Your task to perform on an android device: turn on airplane mode Image 0: 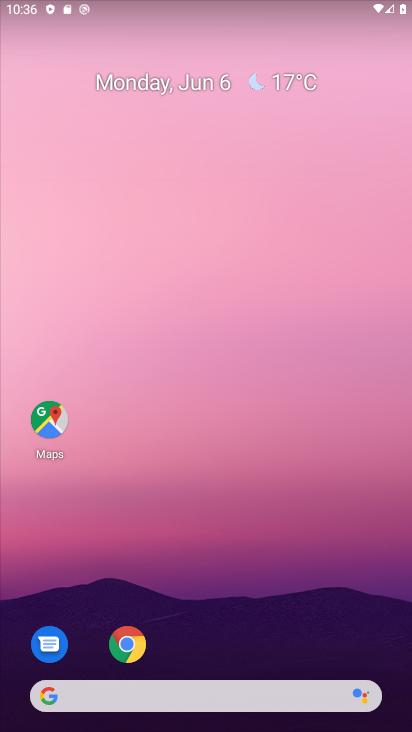
Step 0: press home button
Your task to perform on an android device: turn on airplane mode Image 1: 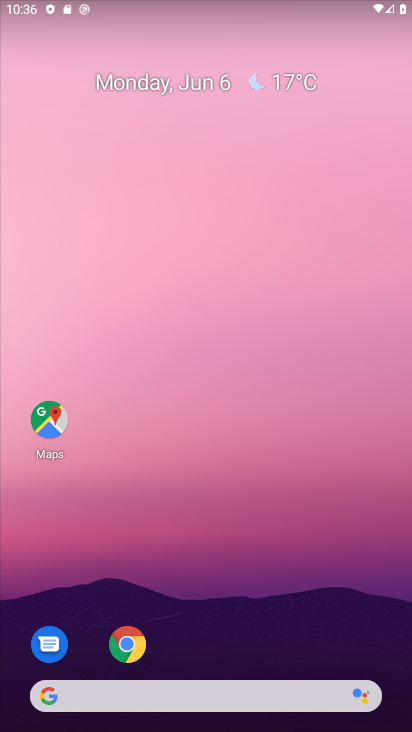
Step 1: drag from (279, 12) to (393, 669)
Your task to perform on an android device: turn on airplane mode Image 2: 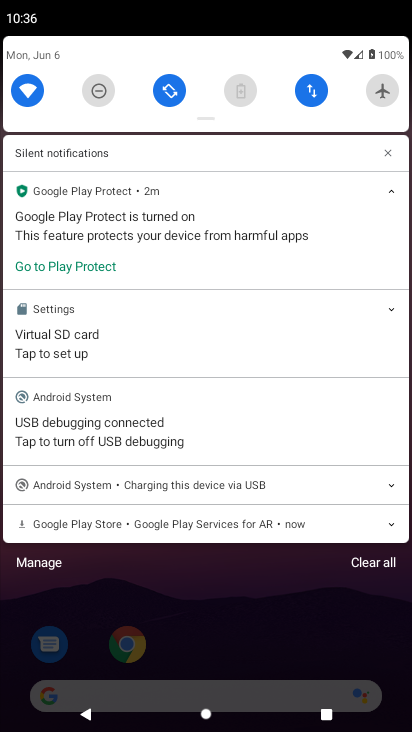
Step 2: click (393, 77)
Your task to perform on an android device: turn on airplane mode Image 3: 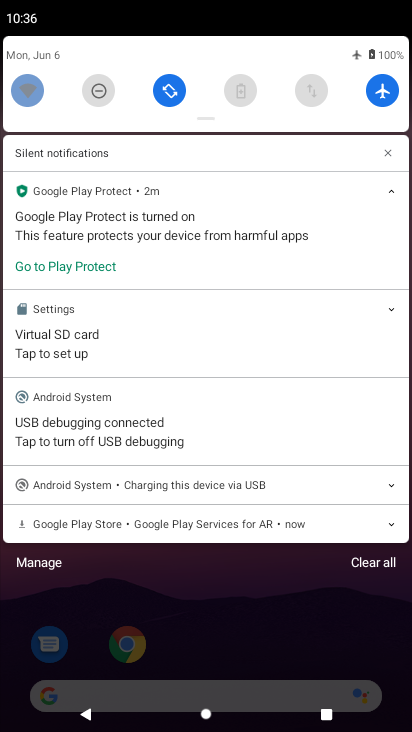
Step 3: task complete